Your task to perform on an android device: toggle sleep mode Image 0: 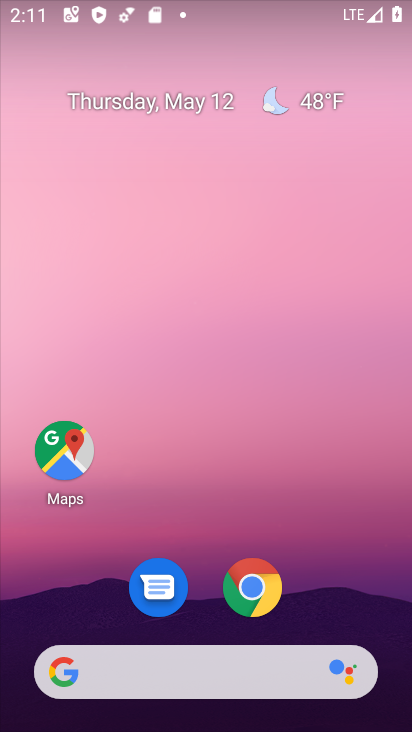
Step 0: drag from (246, 606) to (216, 226)
Your task to perform on an android device: toggle sleep mode Image 1: 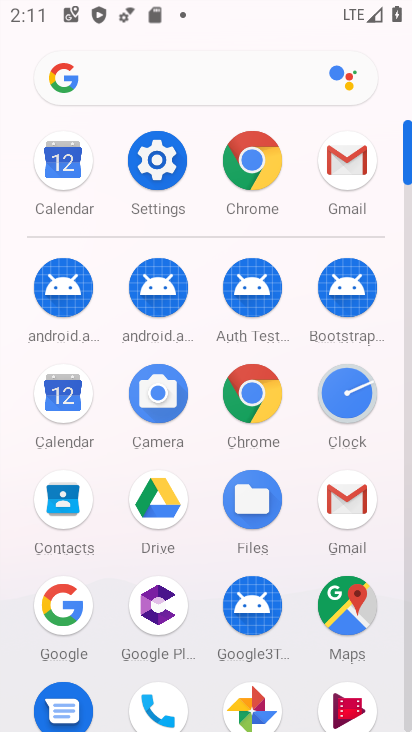
Step 1: click (150, 160)
Your task to perform on an android device: toggle sleep mode Image 2: 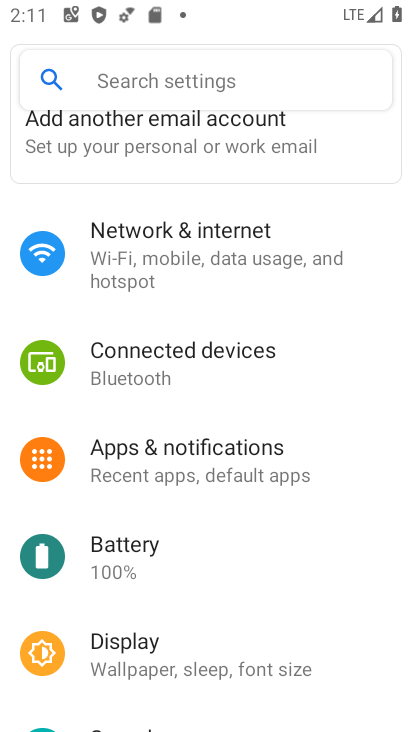
Step 2: drag from (180, 540) to (183, 369)
Your task to perform on an android device: toggle sleep mode Image 3: 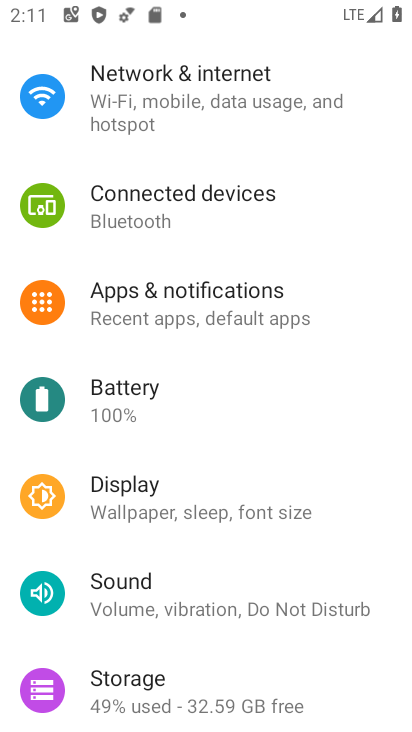
Step 3: click (158, 493)
Your task to perform on an android device: toggle sleep mode Image 4: 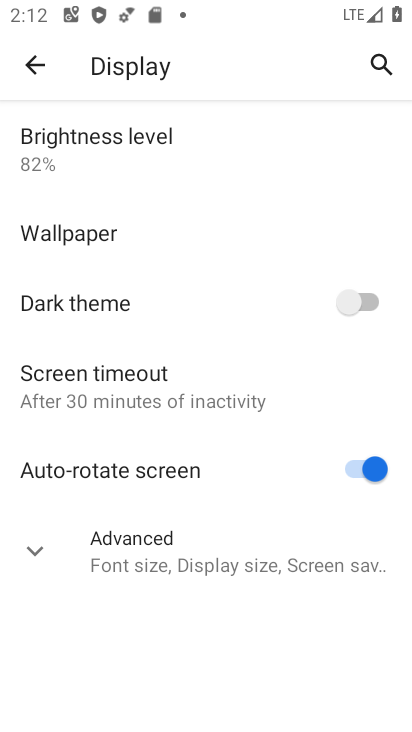
Step 4: click (175, 554)
Your task to perform on an android device: toggle sleep mode Image 5: 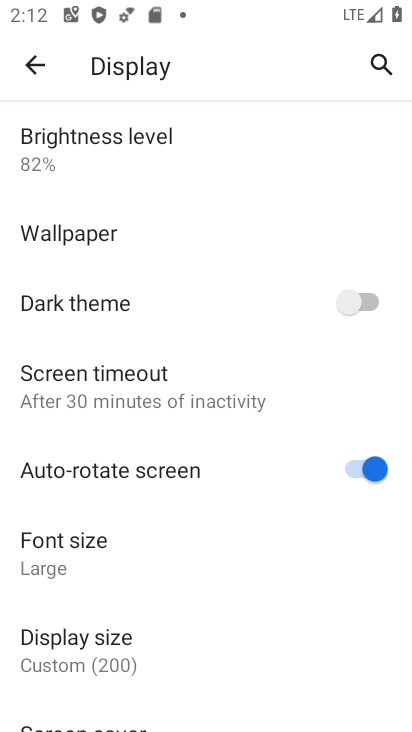
Step 5: task complete